Your task to perform on an android device: open the mobile data screen to see how much data has been used Image 0: 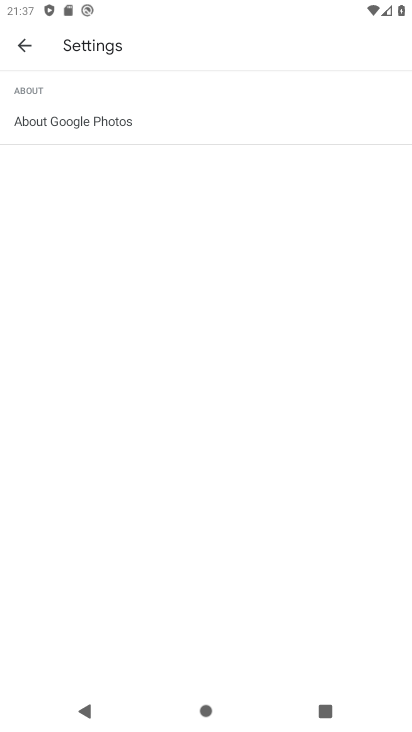
Step 0: press back button
Your task to perform on an android device: open the mobile data screen to see how much data has been used Image 1: 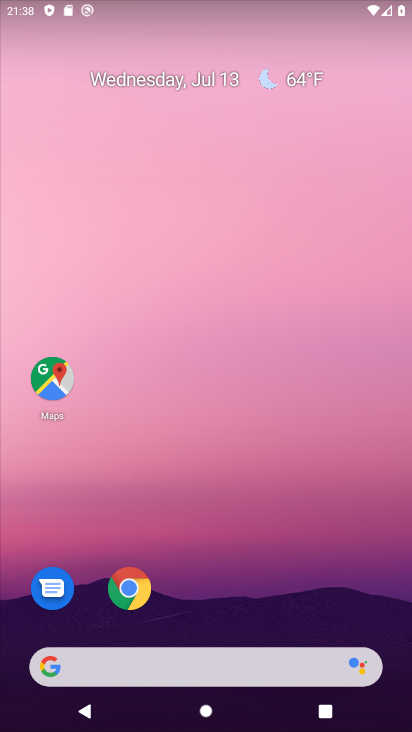
Step 1: drag from (266, 428) to (294, 11)
Your task to perform on an android device: open the mobile data screen to see how much data has been used Image 2: 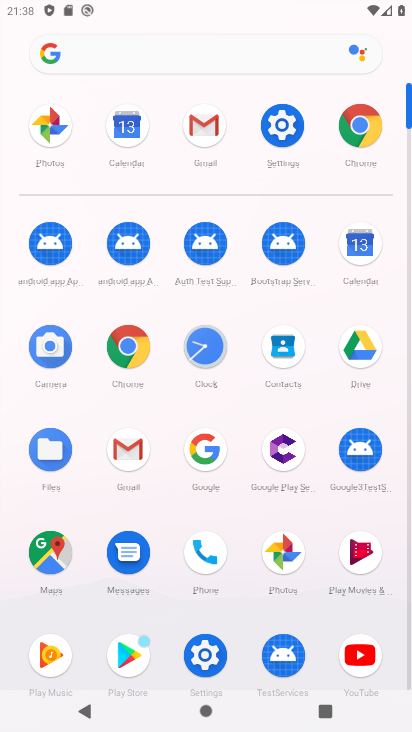
Step 2: click (289, 129)
Your task to perform on an android device: open the mobile data screen to see how much data has been used Image 3: 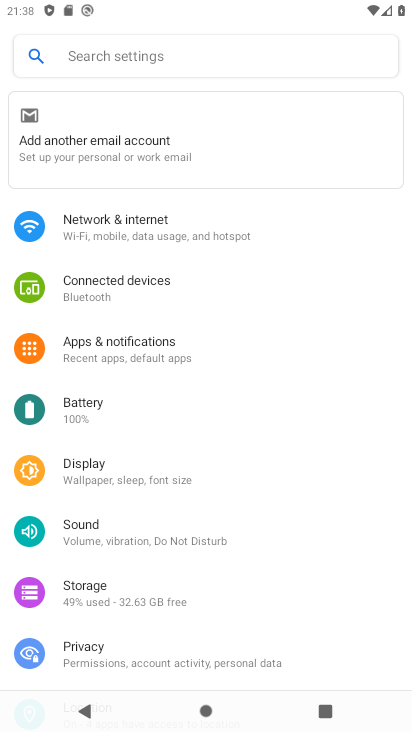
Step 3: click (174, 227)
Your task to perform on an android device: open the mobile data screen to see how much data has been used Image 4: 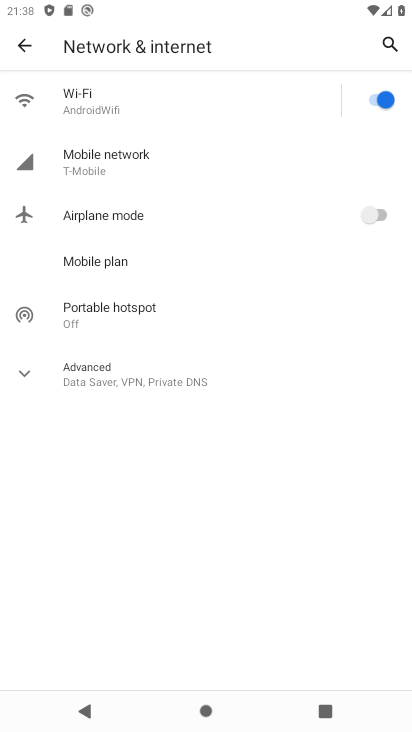
Step 4: click (100, 153)
Your task to perform on an android device: open the mobile data screen to see how much data has been used Image 5: 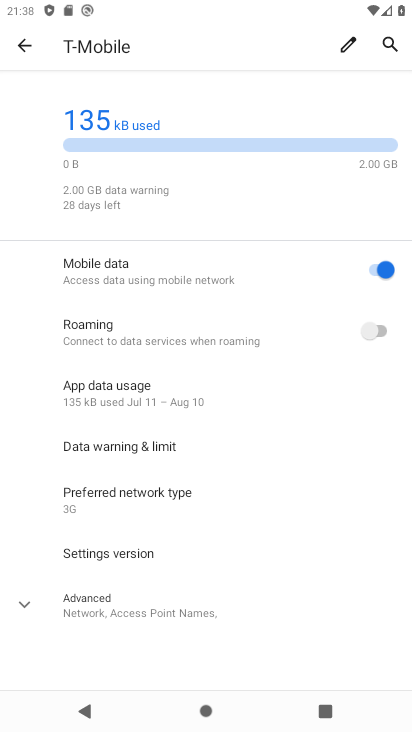
Step 5: click (164, 392)
Your task to perform on an android device: open the mobile data screen to see how much data has been used Image 6: 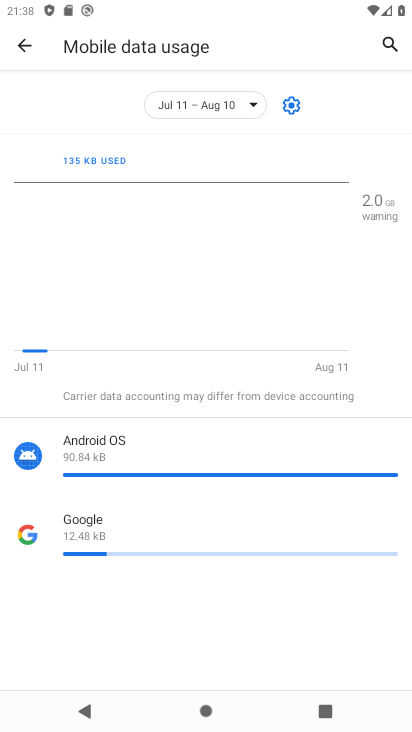
Step 6: task complete